Your task to perform on an android device: turn notification dots on Image 0: 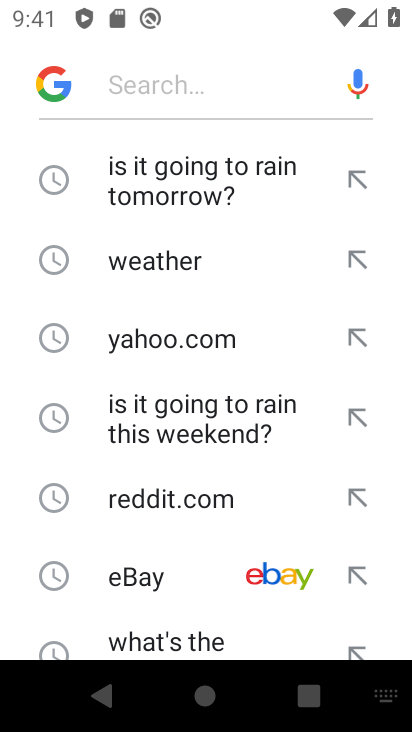
Step 0: press home button
Your task to perform on an android device: turn notification dots on Image 1: 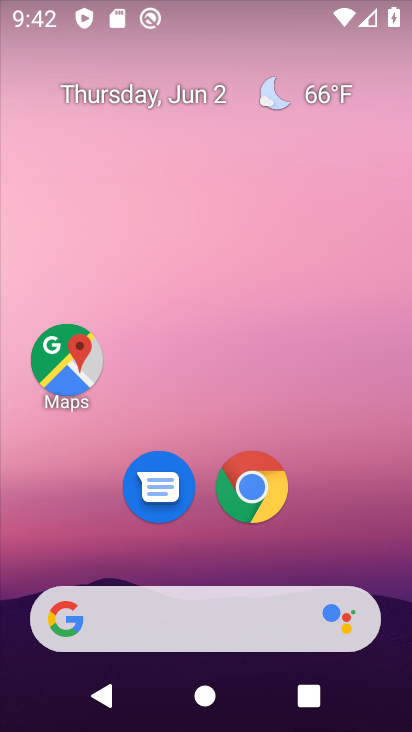
Step 1: drag from (245, 727) to (177, 112)
Your task to perform on an android device: turn notification dots on Image 2: 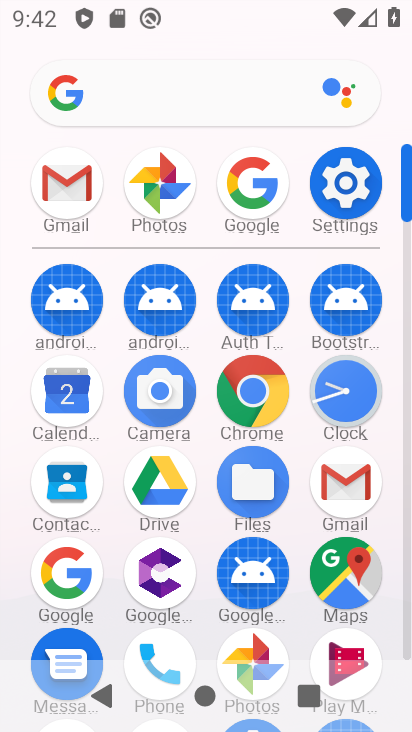
Step 2: click (336, 186)
Your task to perform on an android device: turn notification dots on Image 3: 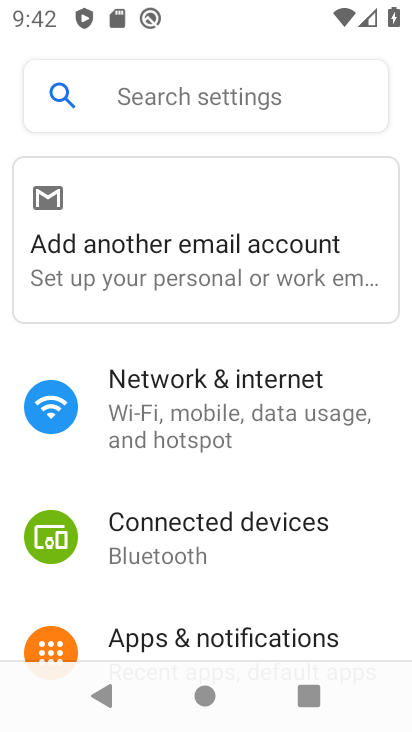
Step 3: click (290, 643)
Your task to perform on an android device: turn notification dots on Image 4: 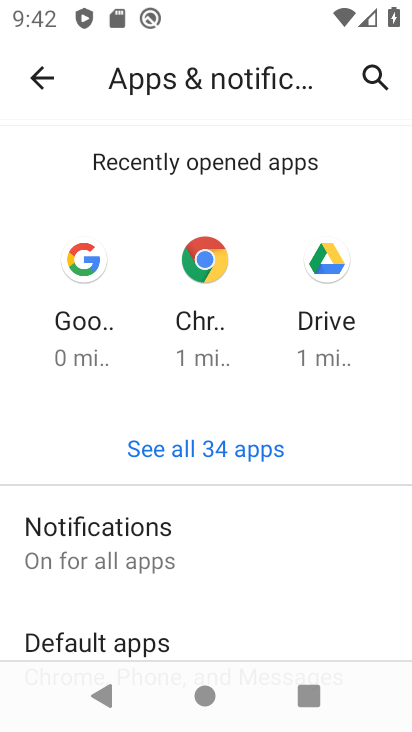
Step 4: click (109, 549)
Your task to perform on an android device: turn notification dots on Image 5: 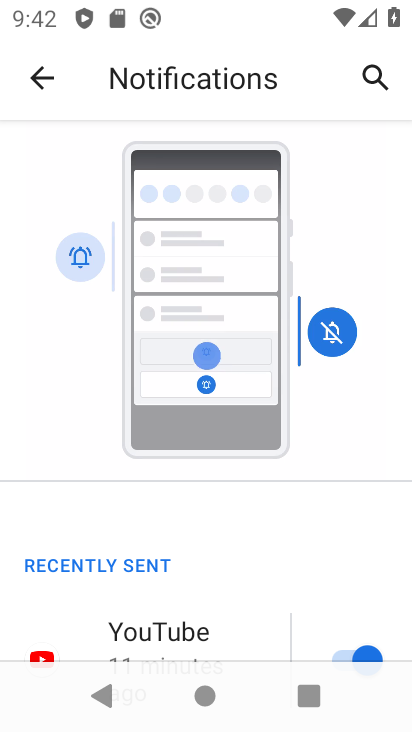
Step 5: drag from (244, 648) to (246, 233)
Your task to perform on an android device: turn notification dots on Image 6: 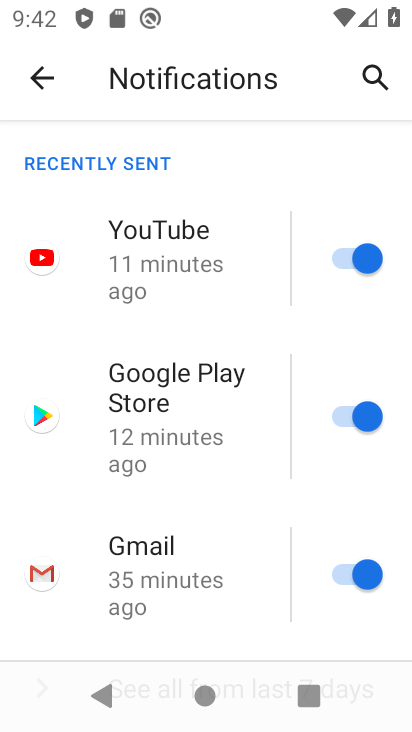
Step 6: drag from (241, 636) to (242, 190)
Your task to perform on an android device: turn notification dots on Image 7: 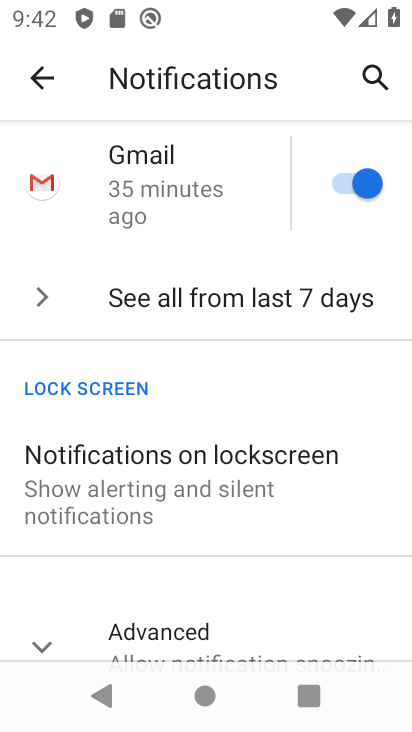
Step 7: drag from (234, 606) to (238, 217)
Your task to perform on an android device: turn notification dots on Image 8: 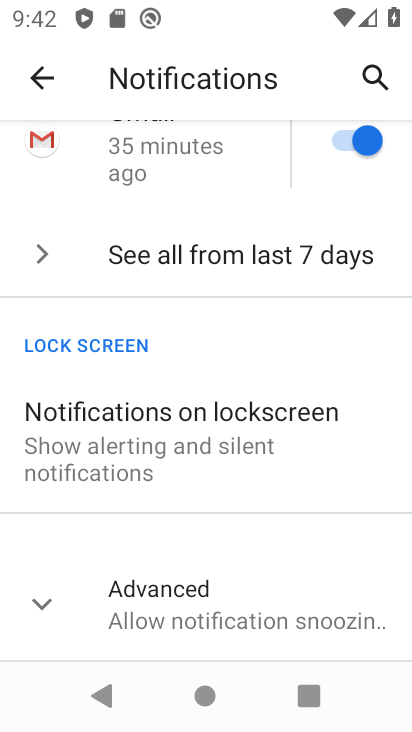
Step 8: click (178, 611)
Your task to perform on an android device: turn notification dots on Image 9: 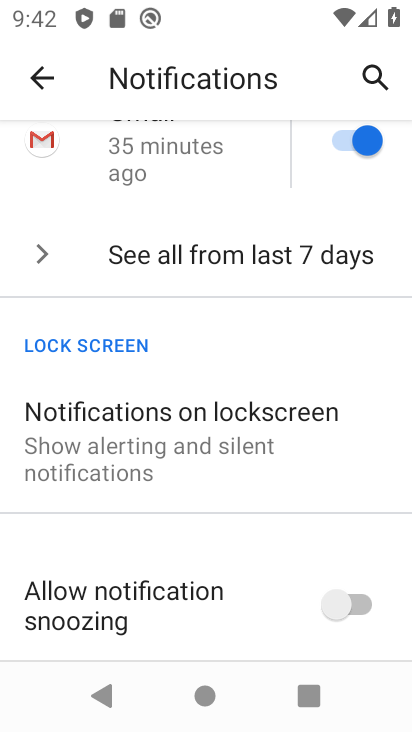
Step 9: drag from (181, 641) to (202, 206)
Your task to perform on an android device: turn notification dots on Image 10: 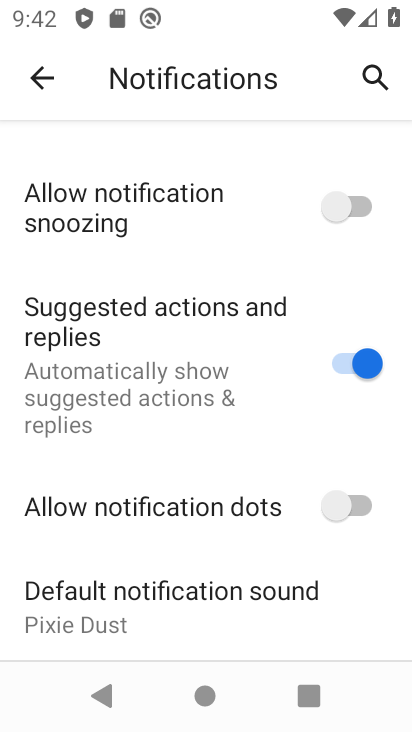
Step 10: click (360, 506)
Your task to perform on an android device: turn notification dots on Image 11: 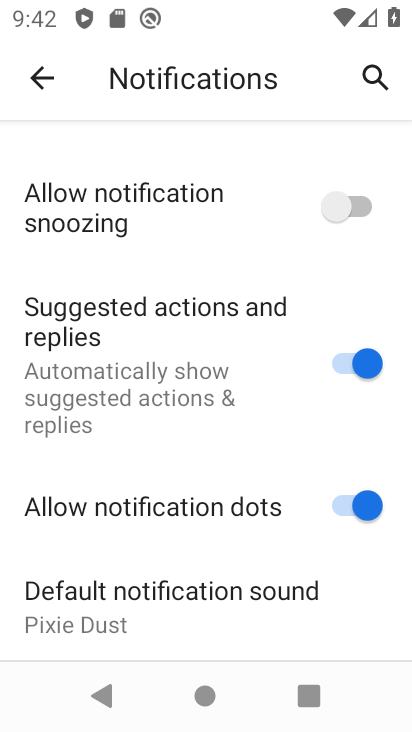
Step 11: task complete